Your task to perform on an android device: Go to sound settings Image 0: 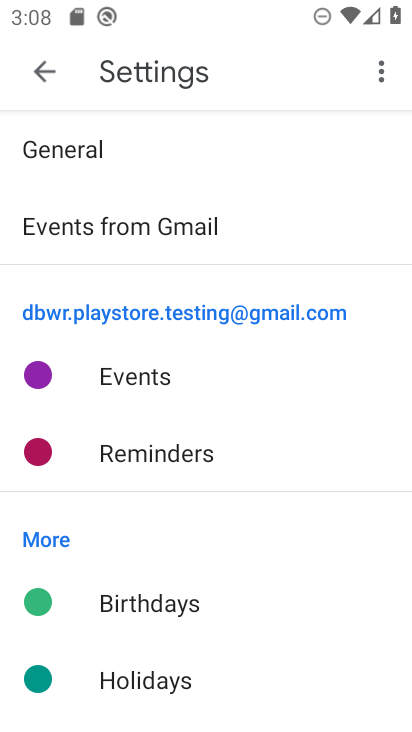
Step 0: press home button
Your task to perform on an android device: Go to sound settings Image 1: 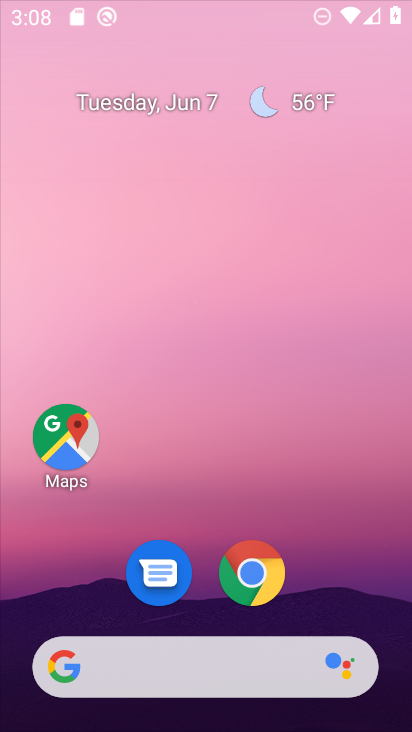
Step 1: drag from (354, 589) to (291, 58)
Your task to perform on an android device: Go to sound settings Image 2: 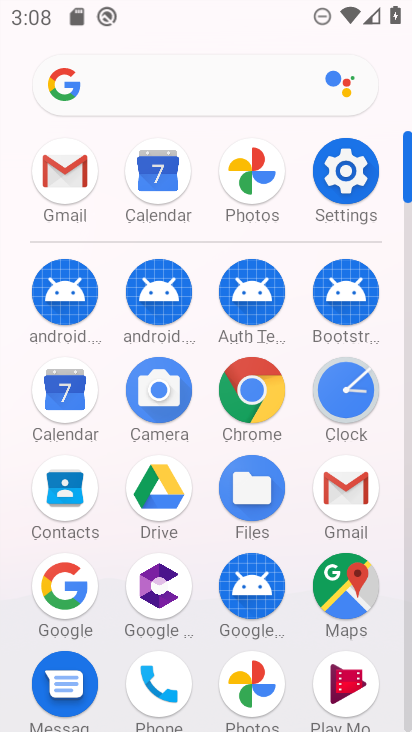
Step 2: click (332, 180)
Your task to perform on an android device: Go to sound settings Image 3: 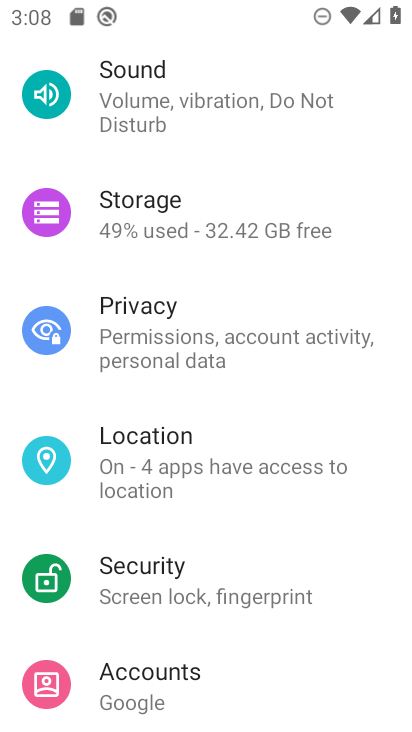
Step 3: click (174, 120)
Your task to perform on an android device: Go to sound settings Image 4: 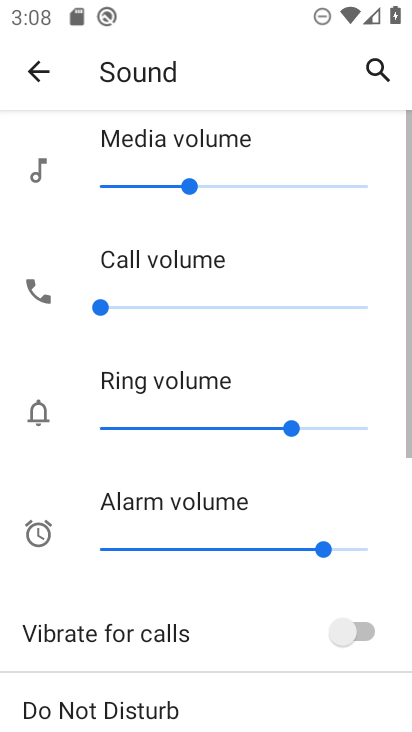
Step 4: task complete